Your task to perform on an android device: Search for macbook pro 15 inch on amazon.com, select the first entry, and add it to the cart. Image 0: 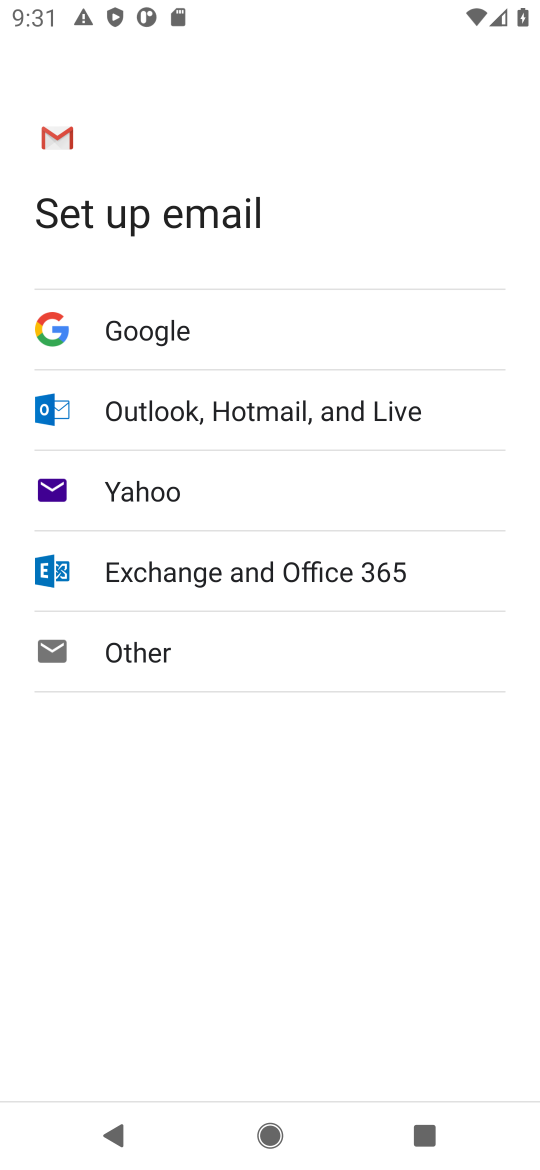
Step 0: press home button
Your task to perform on an android device: Search for macbook pro 15 inch on amazon.com, select the first entry, and add it to the cart. Image 1: 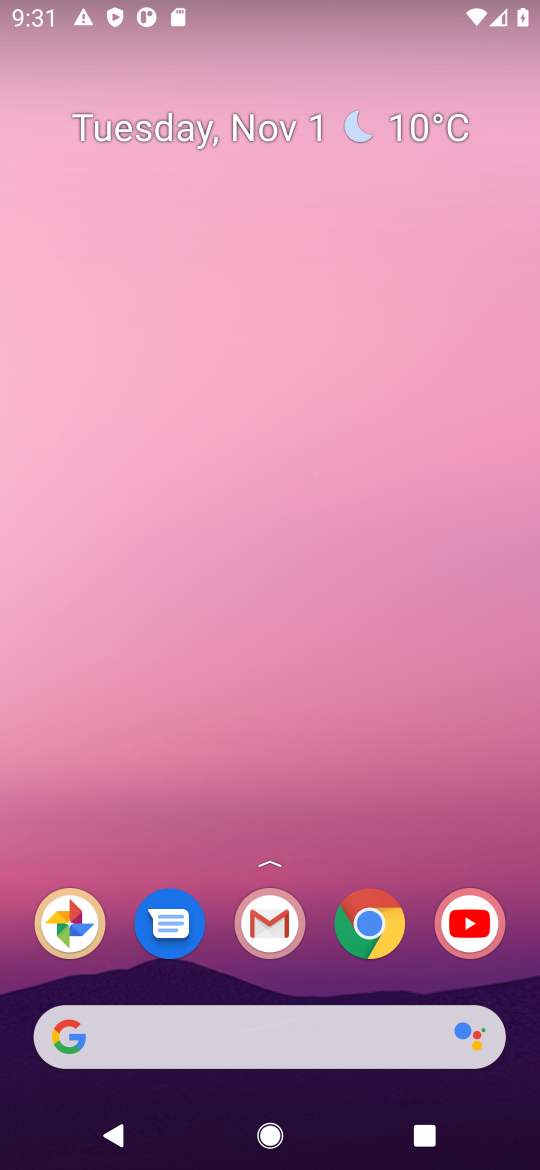
Step 1: drag from (319, 976) to (159, 262)
Your task to perform on an android device: Search for macbook pro 15 inch on amazon.com, select the first entry, and add it to the cart. Image 2: 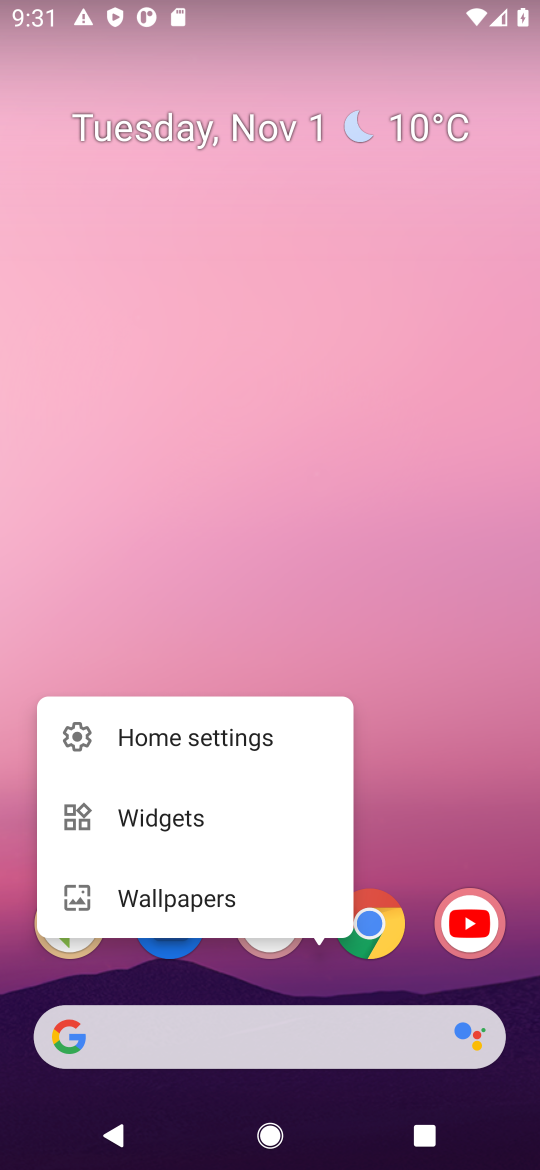
Step 2: click (394, 783)
Your task to perform on an android device: Search for macbook pro 15 inch on amazon.com, select the first entry, and add it to the cart. Image 3: 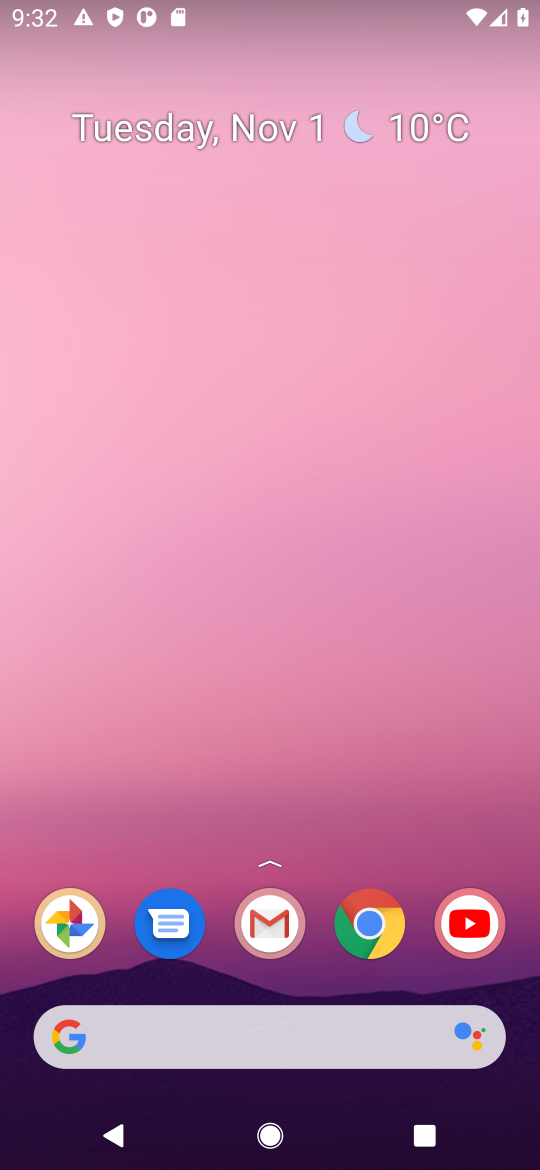
Step 3: drag from (316, 983) to (313, 321)
Your task to perform on an android device: Search for macbook pro 15 inch on amazon.com, select the first entry, and add it to the cart. Image 4: 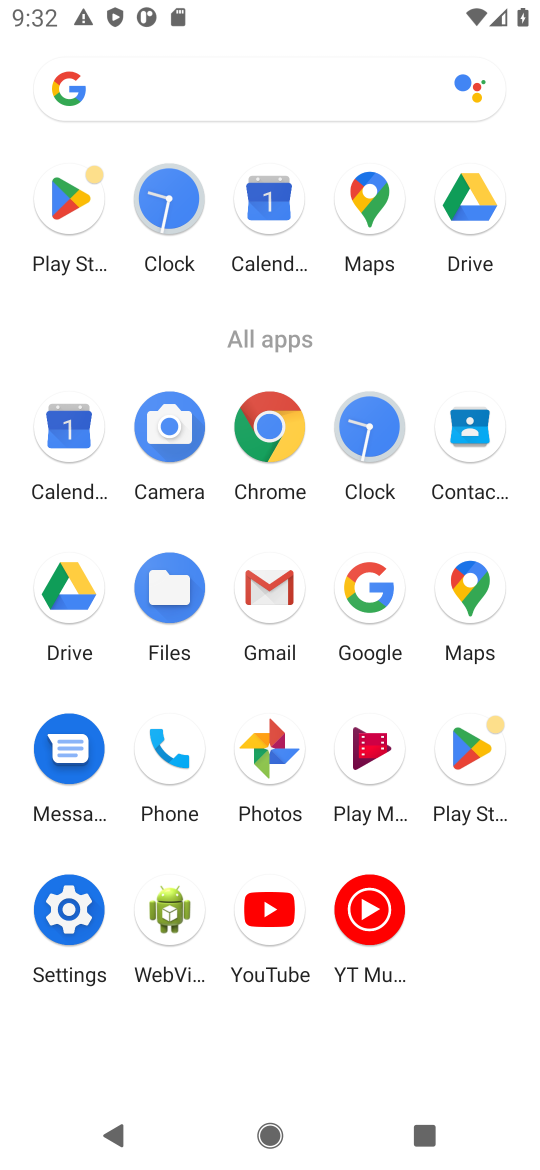
Step 4: click (263, 437)
Your task to perform on an android device: Search for macbook pro 15 inch on amazon.com, select the first entry, and add it to the cart. Image 5: 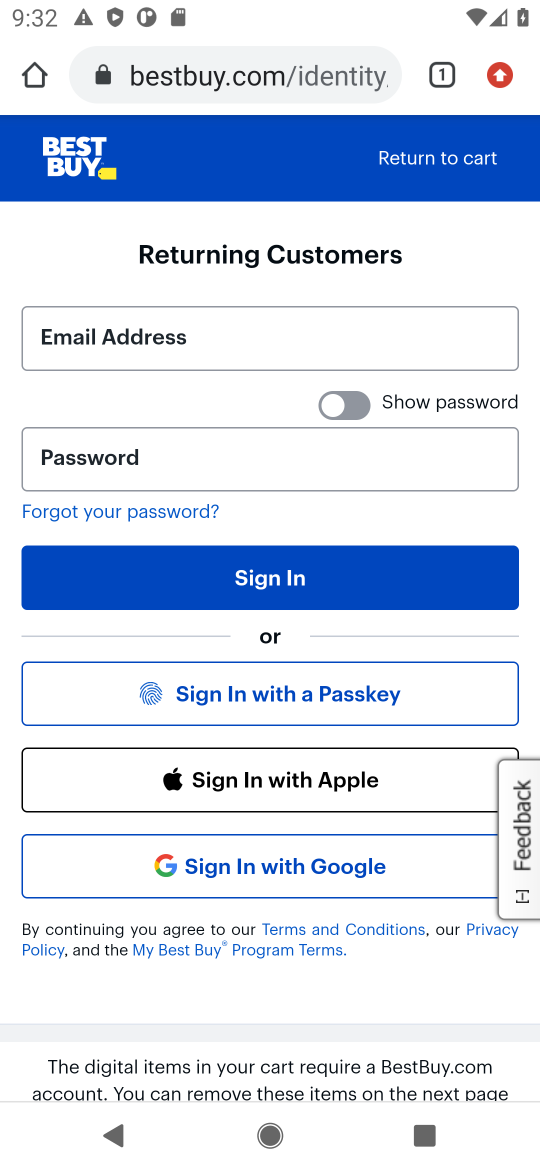
Step 5: click (269, 87)
Your task to perform on an android device: Search for macbook pro 15 inch on amazon.com, select the first entry, and add it to the cart. Image 6: 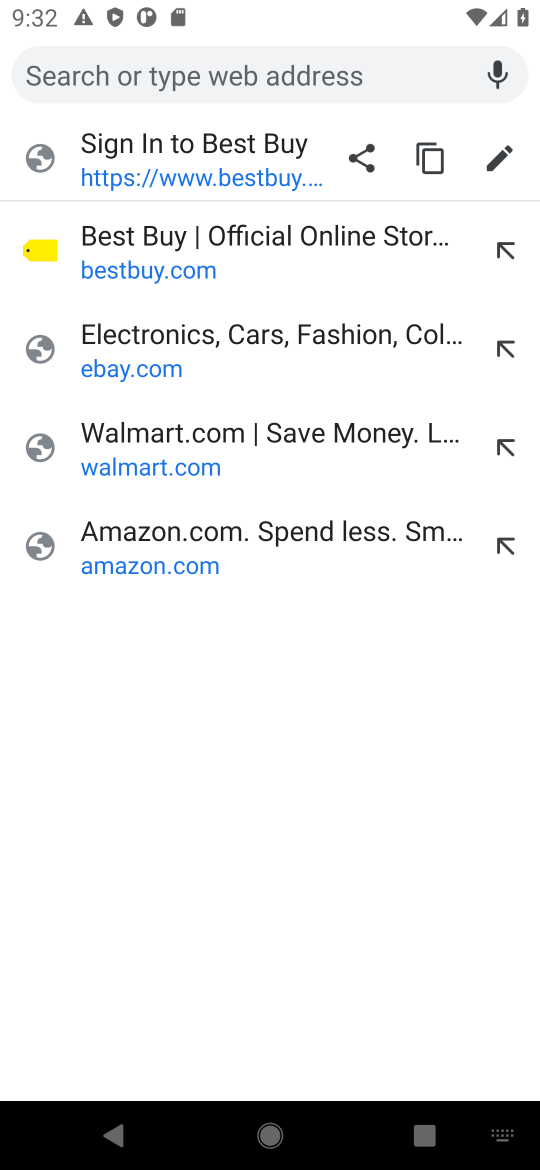
Step 6: type "amazon.com"
Your task to perform on an android device: Search for macbook pro 15 inch on amazon.com, select the first entry, and add it to the cart. Image 7: 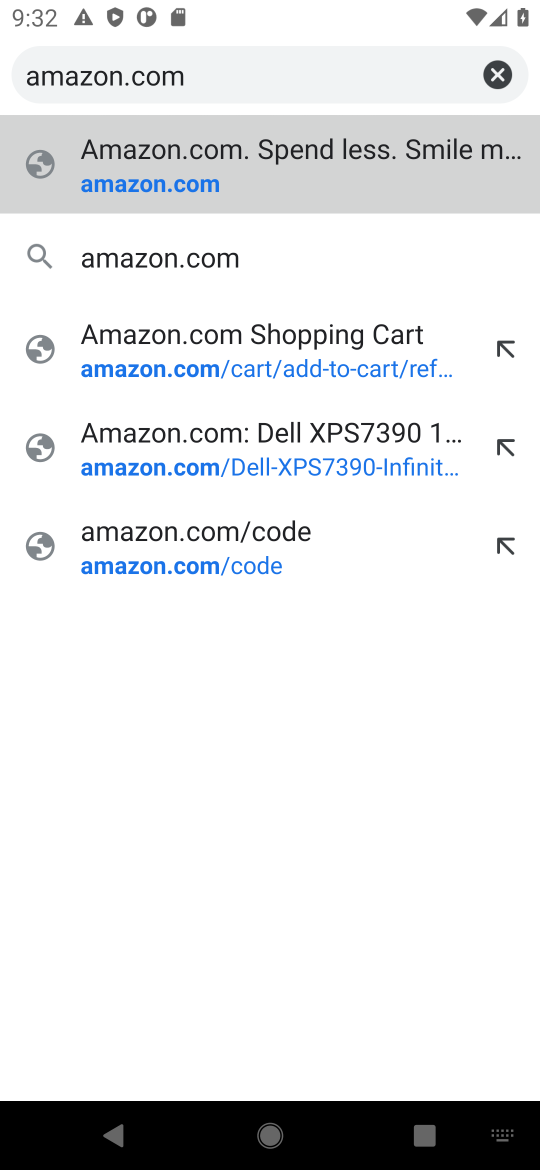
Step 7: press enter
Your task to perform on an android device: Search for macbook pro 15 inch on amazon.com, select the first entry, and add it to the cart. Image 8: 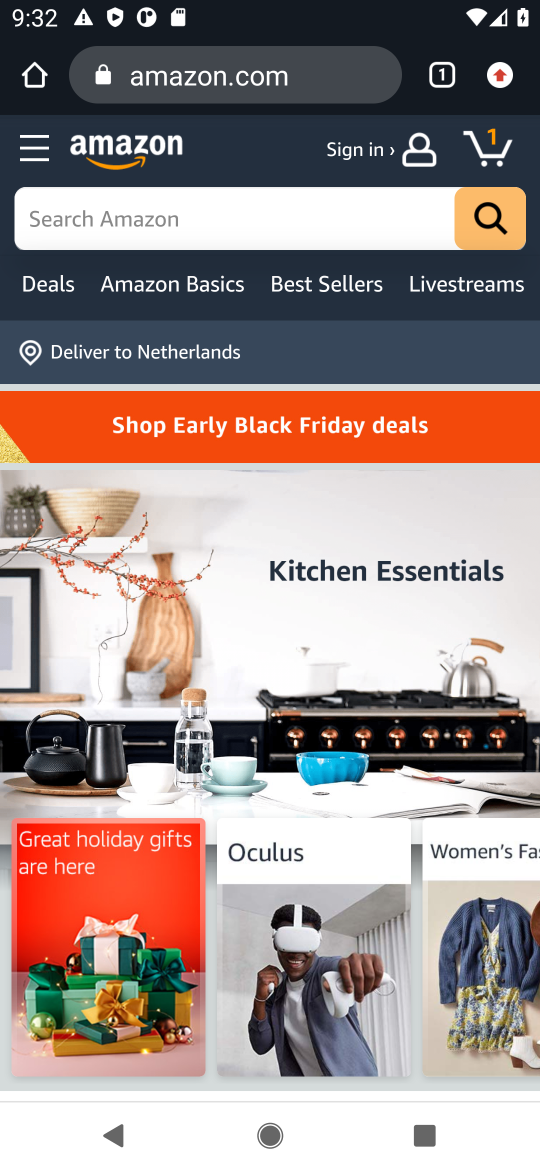
Step 8: click (242, 223)
Your task to perform on an android device: Search for macbook pro 15 inch on amazon.com, select the first entry, and add it to the cart. Image 9: 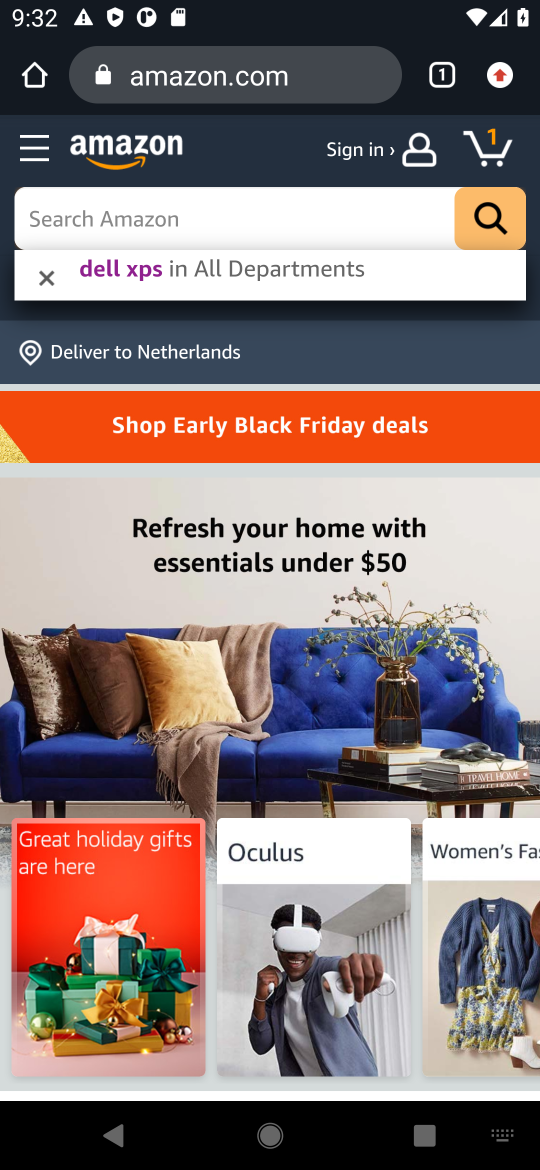
Step 9: type "macbook pro 15"
Your task to perform on an android device: Search for macbook pro 15 inch on amazon.com, select the first entry, and add it to the cart. Image 10: 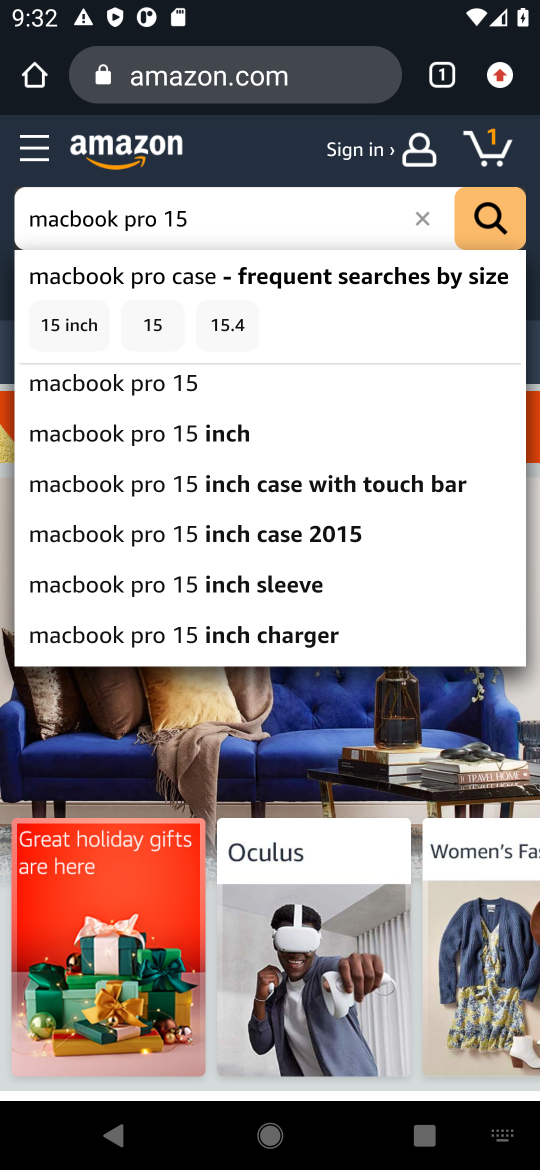
Step 10: press enter
Your task to perform on an android device: Search for macbook pro 15 inch on amazon.com, select the first entry, and add it to the cart. Image 11: 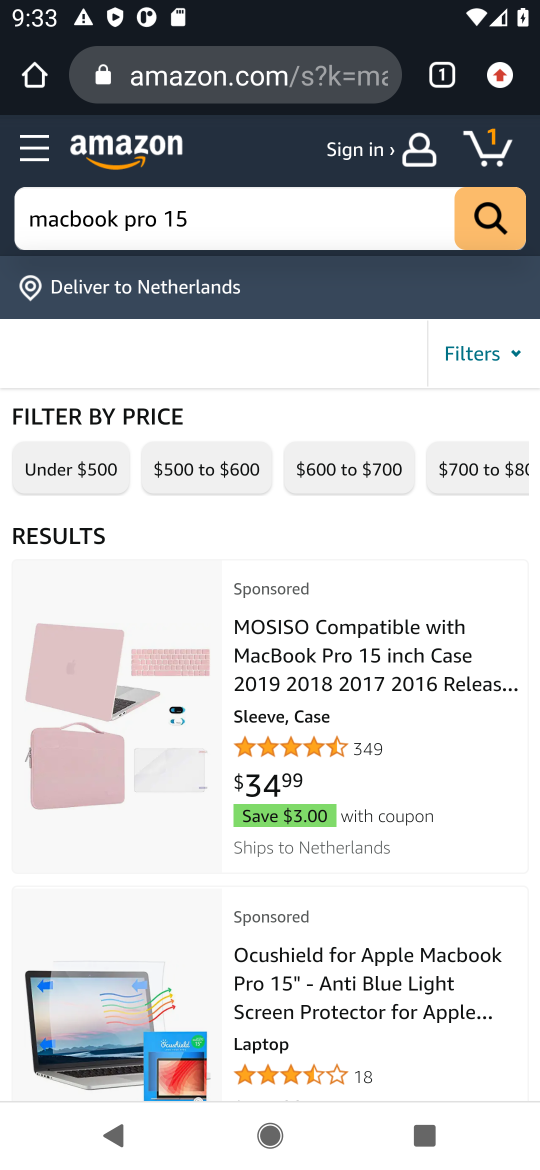
Step 11: drag from (321, 1025) to (339, 476)
Your task to perform on an android device: Search for macbook pro 15 inch on amazon.com, select the first entry, and add it to the cart. Image 12: 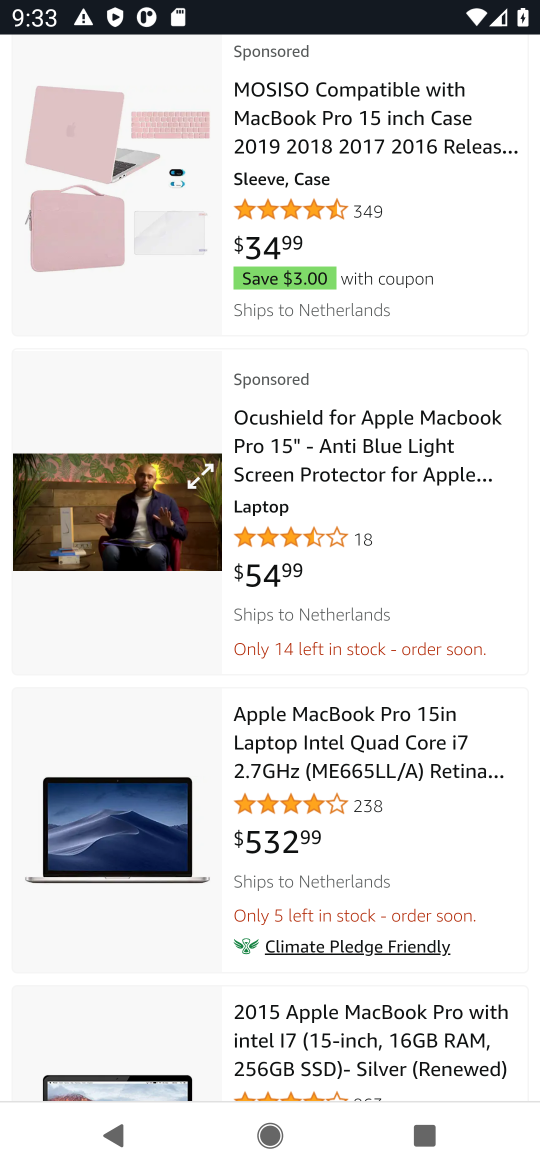
Step 12: click (390, 778)
Your task to perform on an android device: Search for macbook pro 15 inch on amazon.com, select the first entry, and add it to the cart. Image 13: 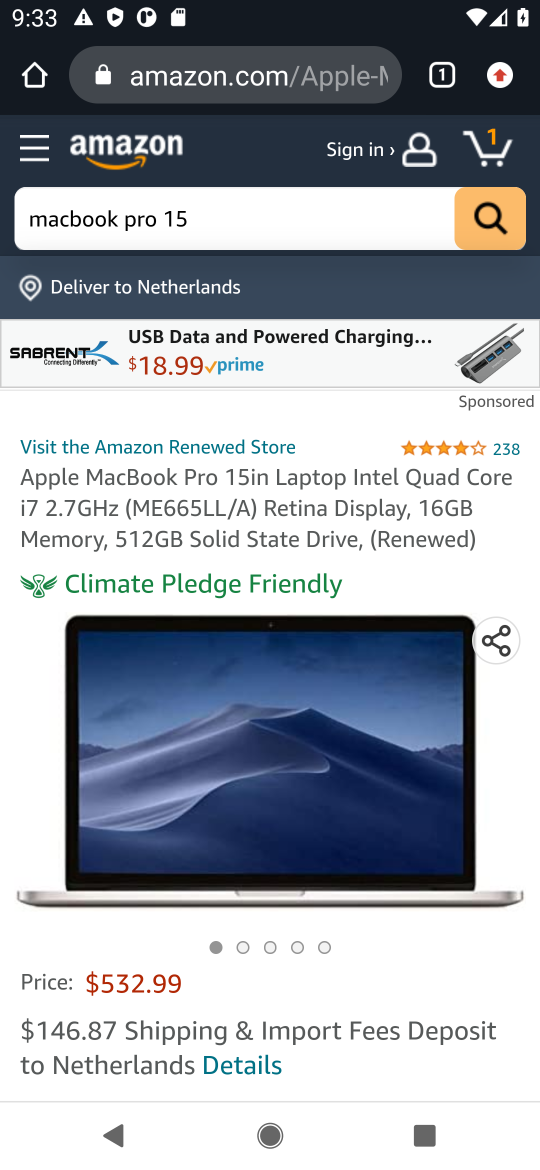
Step 13: drag from (405, 767) to (339, 242)
Your task to perform on an android device: Search for macbook pro 15 inch on amazon.com, select the first entry, and add it to the cart. Image 14: 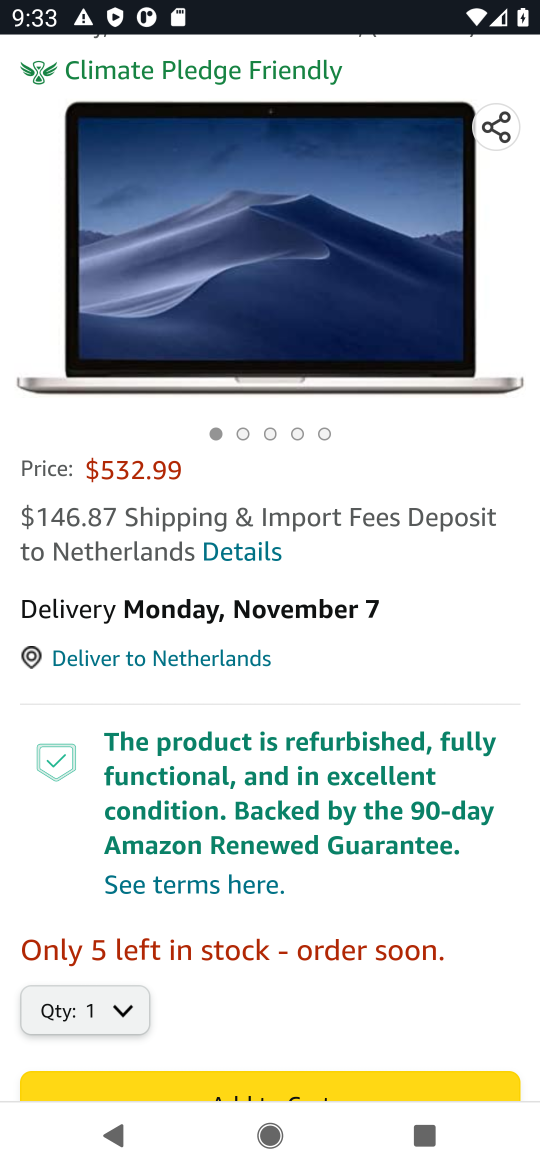
Step 14: drag from (321, 715) to (246, 487)
Your task to perform on an android device: Search for macbook pro 15 inch on amazon.com, select the first entry, and add it to the cart. Image 15: 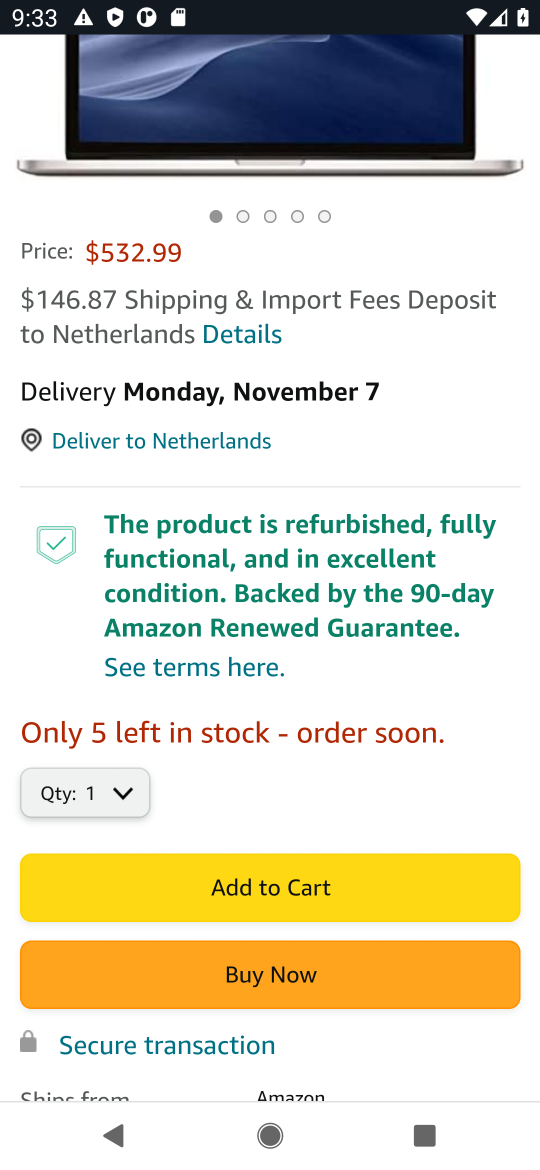
Step 15: click (301, 869)
Your task to perform on an android device: Search for macbook pro 15 inch on amazon.com, select the first entry, and add it to the cart. Image 16: 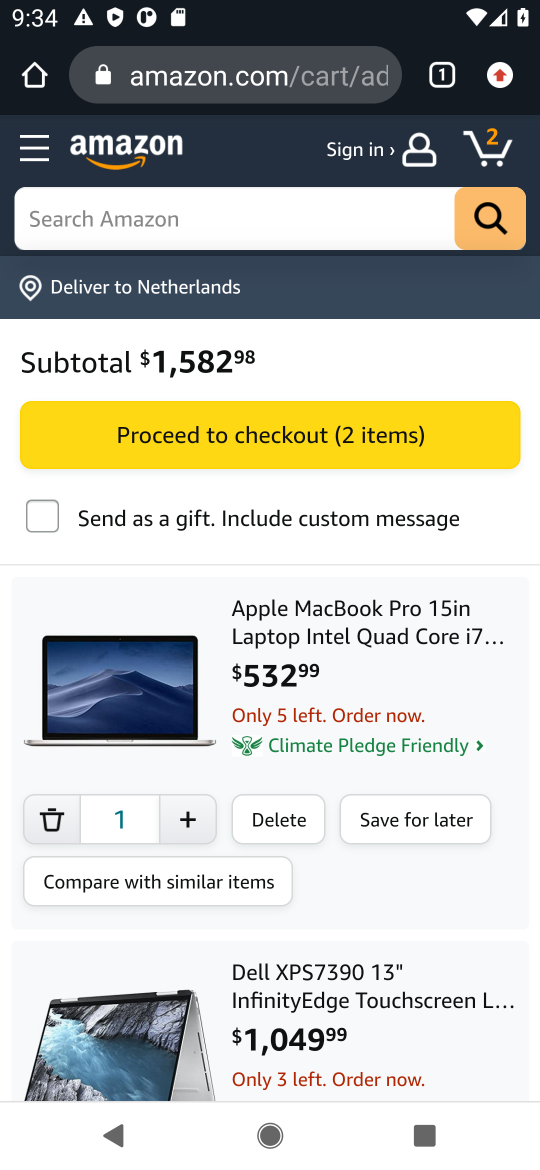
Step 16: task complete